Your task to perform on an android device: make emails show in primary in the gmail app Image 0: 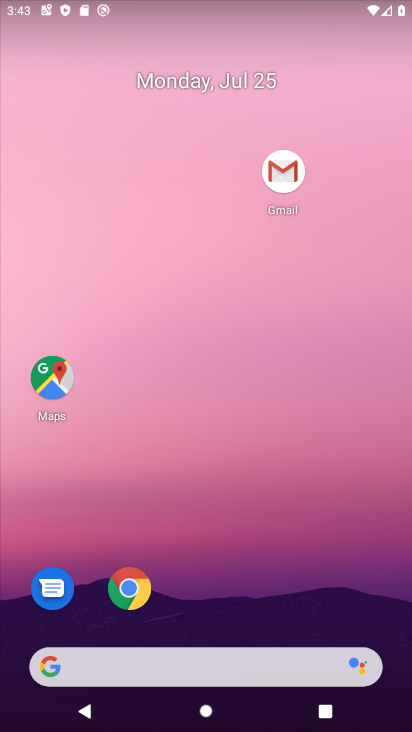
Step 0: drag from (280, 554) to (153, 75)
Your task to perform on an android device: make emails show in primary in the gmail app Image 1: 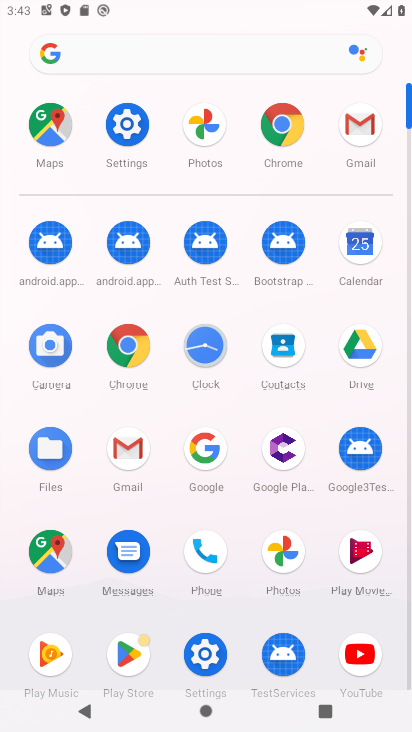
Step 1: click (133, 448)
Your task to perform on an android device: make emails show in primary in the gmail app Image 2: 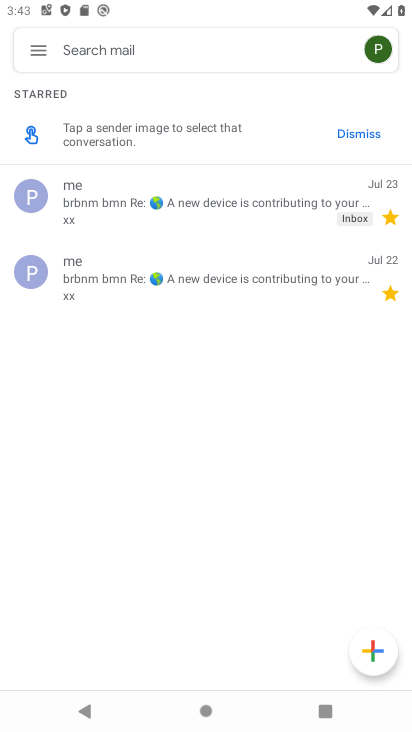
Step 2: click (30, 47)
Your task to perform on an android device: make emails show in primary in the gmail app Image 3: 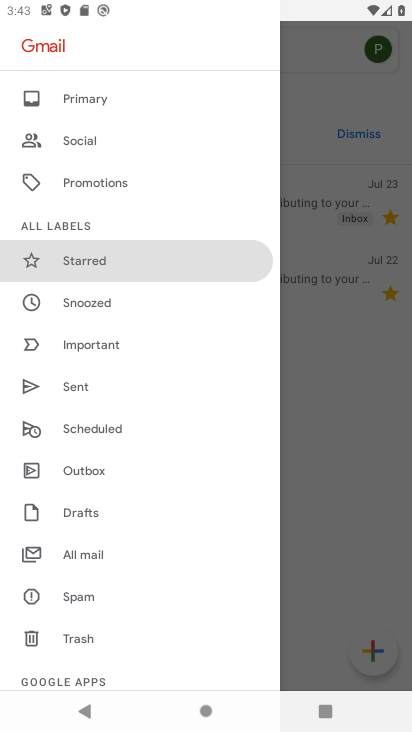
Step 3: drag from (108, 629) to (122, 177)
Your task to perform on an android device: make emails show in primary in the gmail app Image 4: 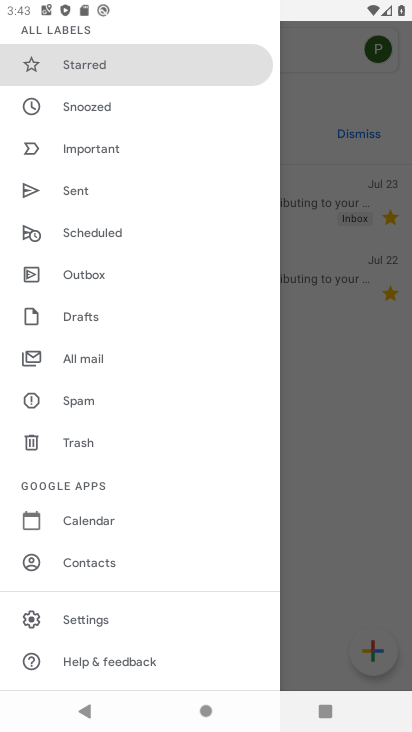
Step 4: click (84, 626)
Your task to perform on an android device: make emails show in primary in the gmail app Image 5: 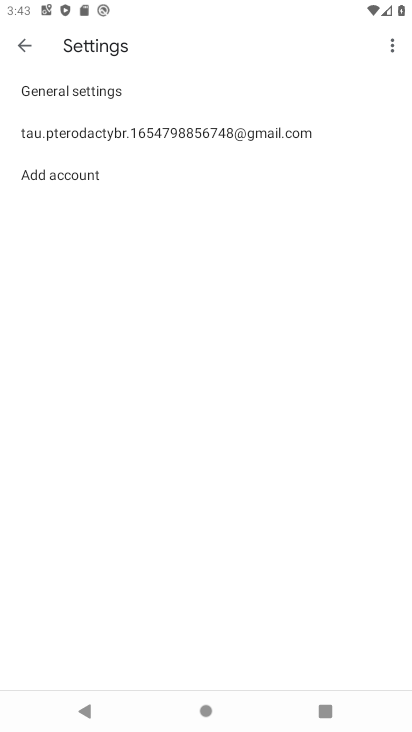
Step 5: click (225, 128)
Your task to perform on an android device: make emails show in primary in the gmail app Image 6: 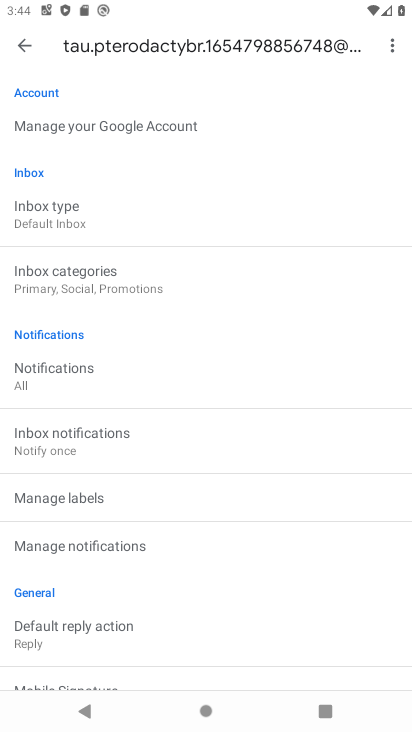
Step 6: click (137, 285)
Your task to perform on an android device: make emails show in primary in the gmail app Image 7: 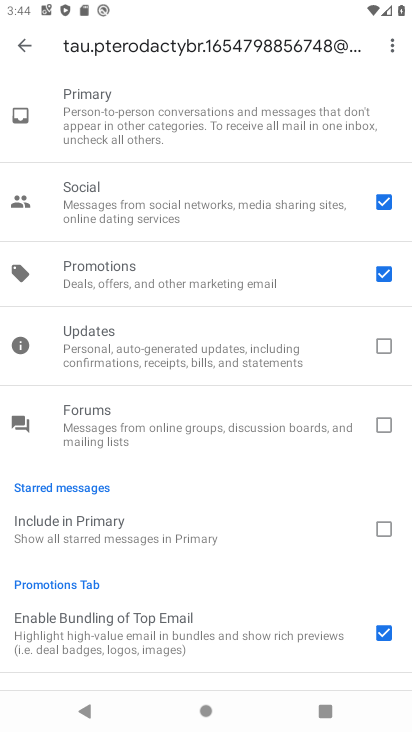
Step 7: task complete